Your task to perform on an android device: Find coffee shops on Maps Image 0: 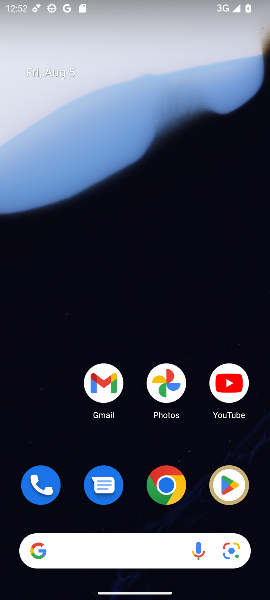
Step 0: drag from (40, 424) to (74, 17)
Your task to perform on an android device: Find coffee shops on Maps Image 1: 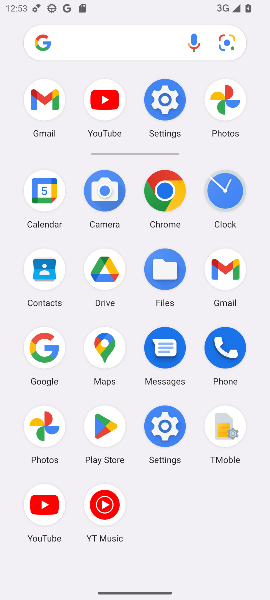
Step 1: click (105, 345)
Your task to perform on an android device: Find coffee shops on Maps Image 2: 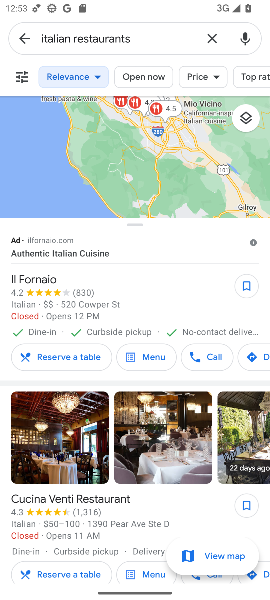
Step 2: click (213, 38)
Your task to perform on an android device: Find coffee shops on Maps Image 3: 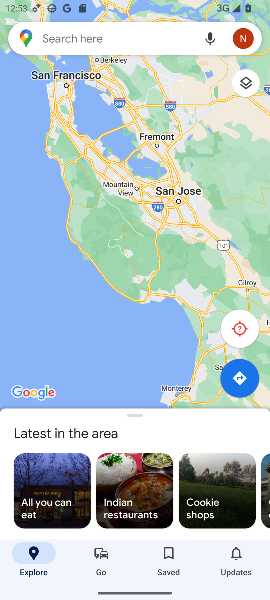
Step 3: click (165, 33)
Your task to perform on an android device: Find coffee shops on Maps Image 4: 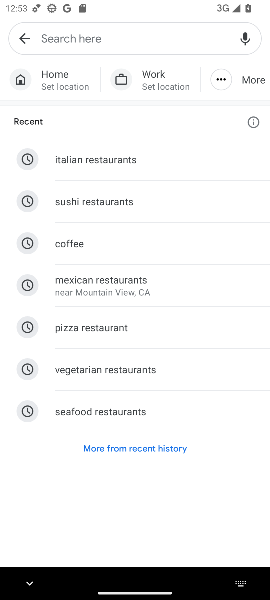
Step 4: click (64, 238)
Your task to perform on an android device: Find coffee shops on Maps Image 5: 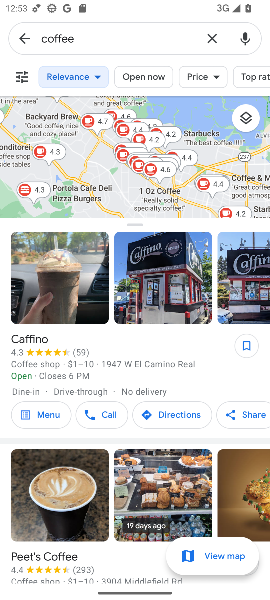
Step 5: task complete